Your task to perform on an android device: turn on data saver in the chrome app Image 0: 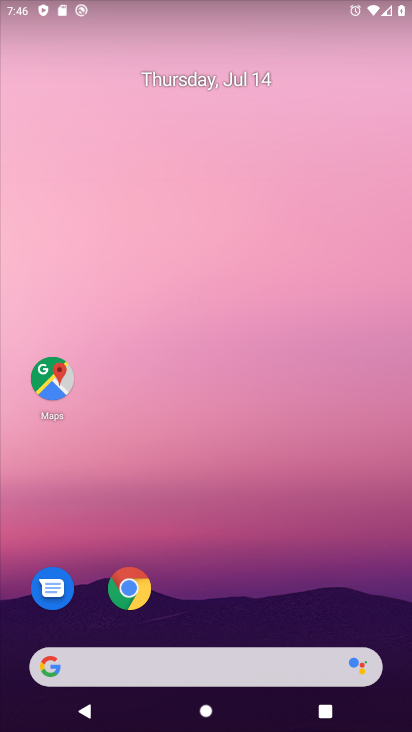
Step 0: click (121, 584)
Your task to perform on an android device: turn on data saver in the chrome app Image 1: 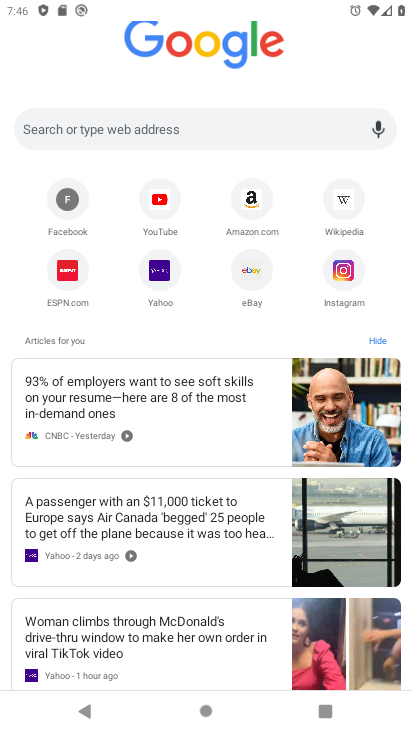
Step 1: click (390, 51)
Your task to perform on an android device: turn on data saver in the chrome app Image 2: 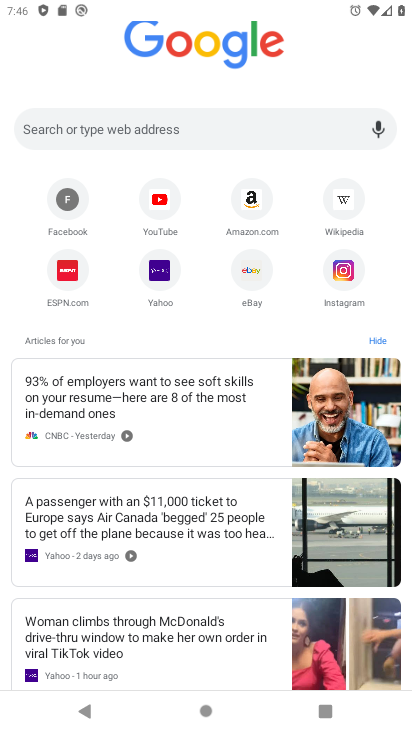
Step 2: click (408, 71)
Your task to perform on an android device: turn on data saver in the chrome app Image 3: 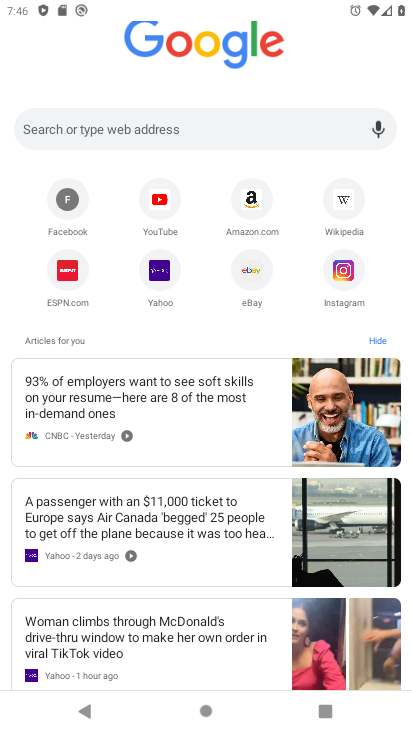
Step 3: click (383, 62)
Your task to perform on an android device: turn on data saver in the chrome app Image 4: 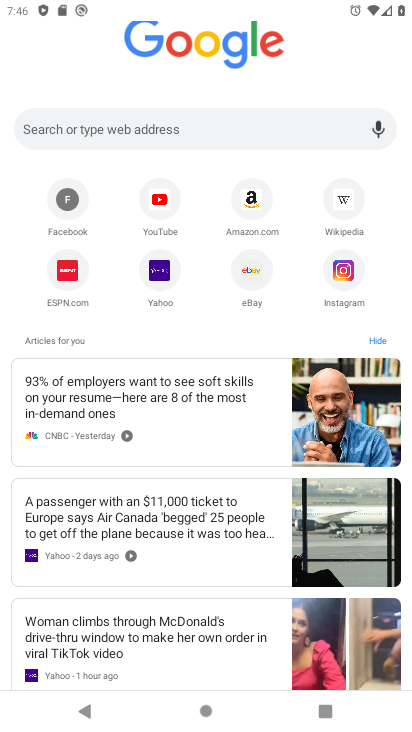
Step 4: click (407, 3)
Your task to perform on an android device: turn on data saver in the chrome app Image 5: 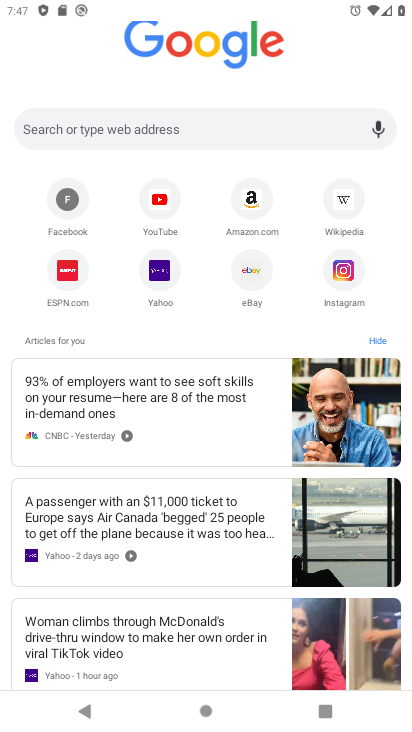
Step 5: task complete